Your task to perform on an android device: toggle show notifications on the lock screen Image 0: 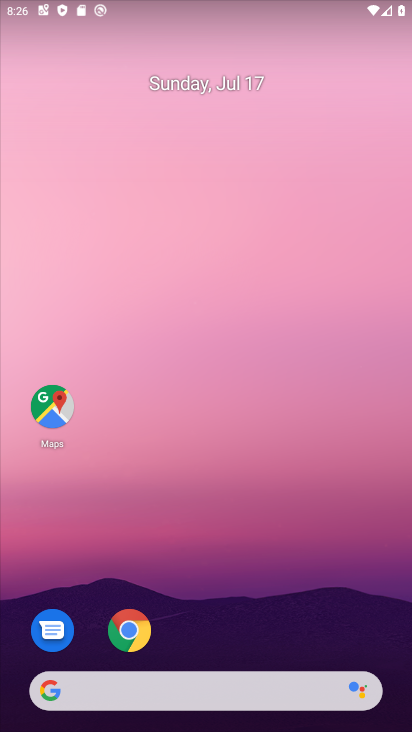
Step 0: drag from (324, 615) to (335, 100)
Your task to perform on an android device: toggle show notifications on the lock screen Image 1: 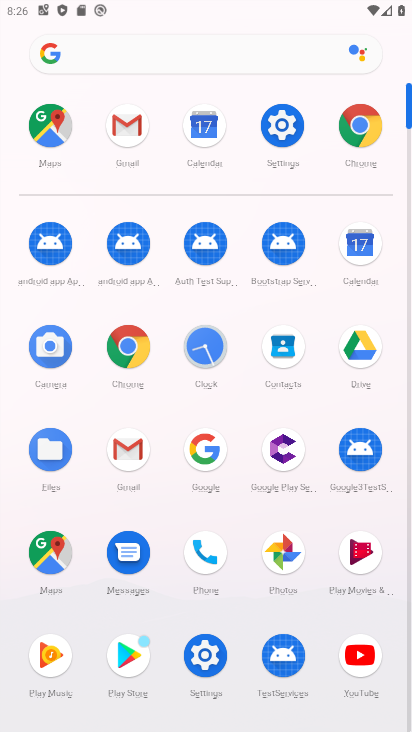
Step 1: click (288, 130)
Your task to perform on an android device: toggle show notifications on the lock screen Image 2: 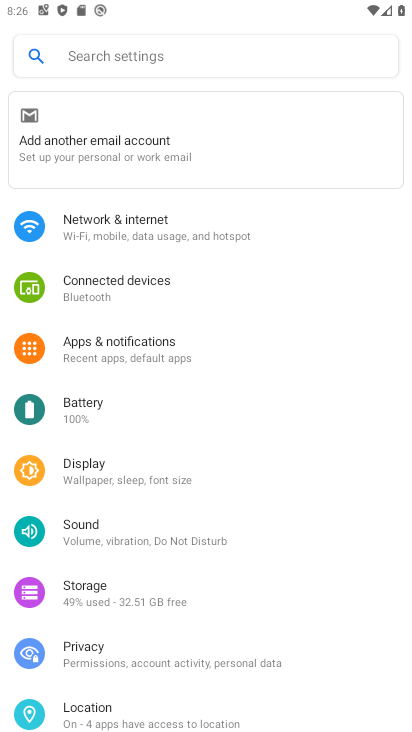
Step 2: drag from (332, 523) to (336, 372)
Your task to perform on an android device: toggle show notifications on the lock screen Image 3: 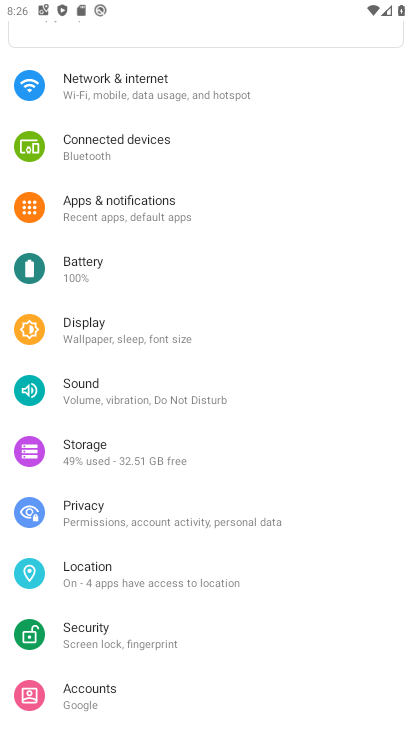
Step 3: drag from (341, 583) to (338, 428)
Your task to perform on an android device: toggle show notifications on the lock screen Image 4: 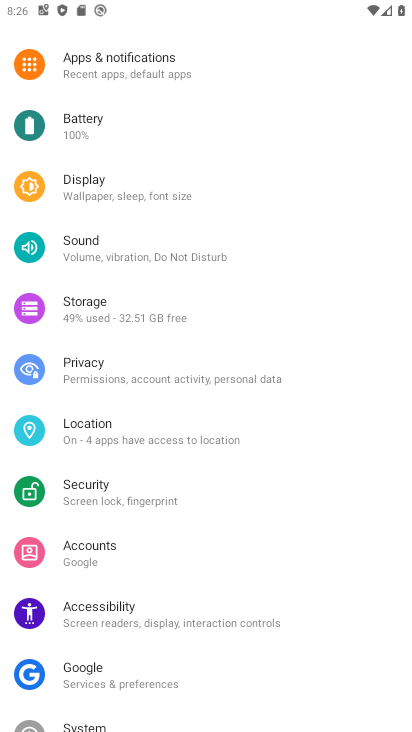
Step 4: drag from (334, 585) to (335, 496)
Your task to perform on an android device: toggle show notifications on the lock screen Image 5: 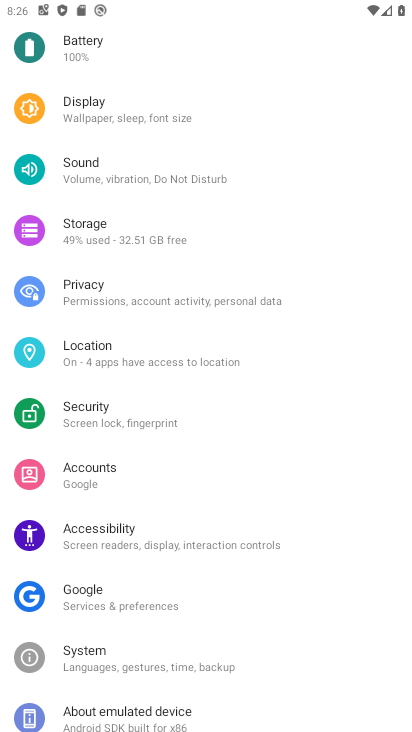
Step 5: drag from (328, 621) to (312, 431)
Your task to perform on an android device: toggle show notifications on the lock screen Image 6: 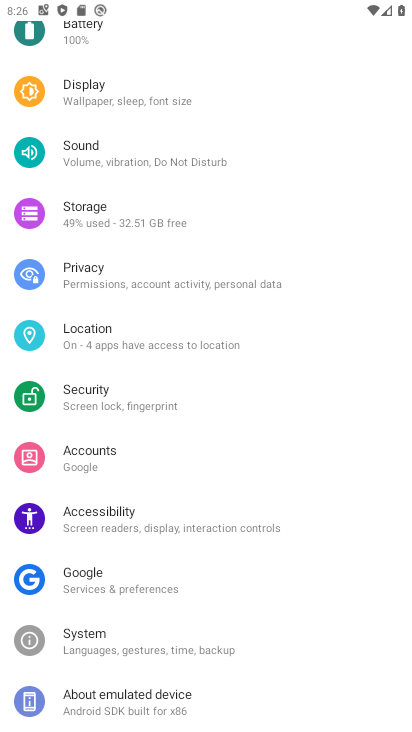
Step 6: drag from (337, 275) to (336, 462)
Your task to perform on an android device: toggle show notifications on the lock screen Image 7: 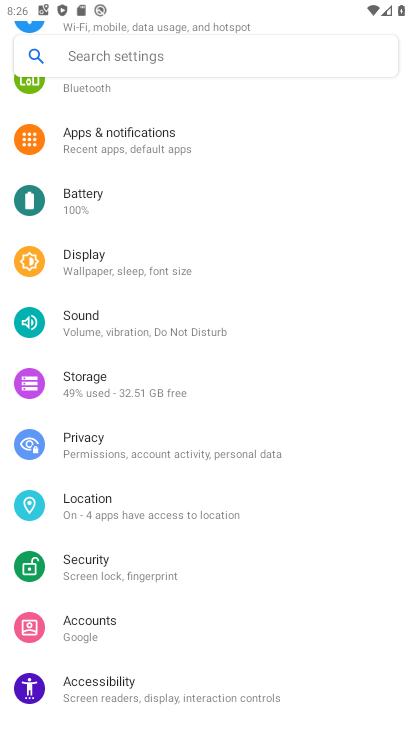
Step 7: drag from (328, 252) to (328, 469)
Your task to perform on an android device: toggle show notifications on the lock screen Image 8: 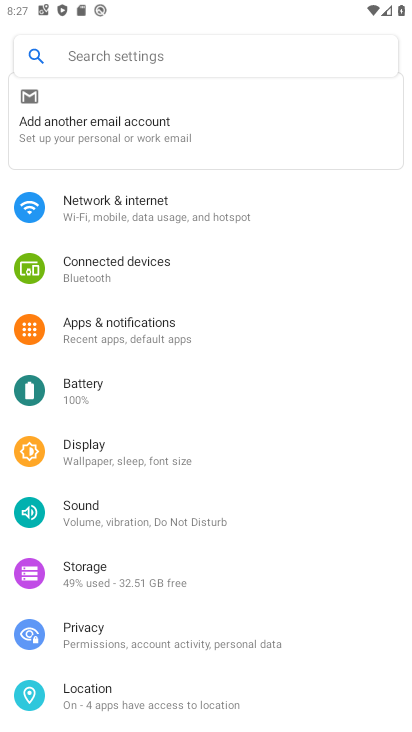
Step 8: drag from (341, 260) to (333, 394)
Your task to perform on an android device: toggle show notifications on the lock screen Image 9: 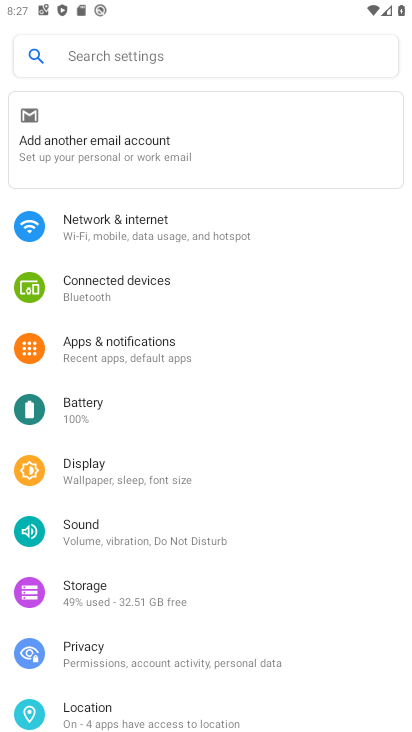
Step 9: drag from (318, 515) to (329, 434)
Your task to perform on an android device: toggle show notifications on the lock screen Image 10: 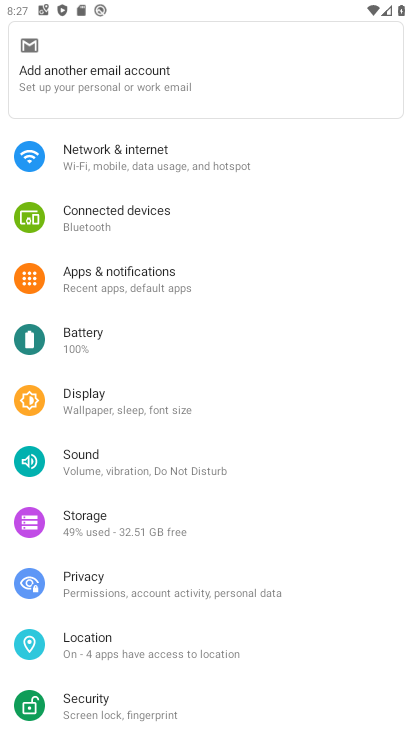
Step 10: drag from (336, 590) to (342, 469)
Your task to perform on an android device: toggle show notifications on the lock screen Image 11: 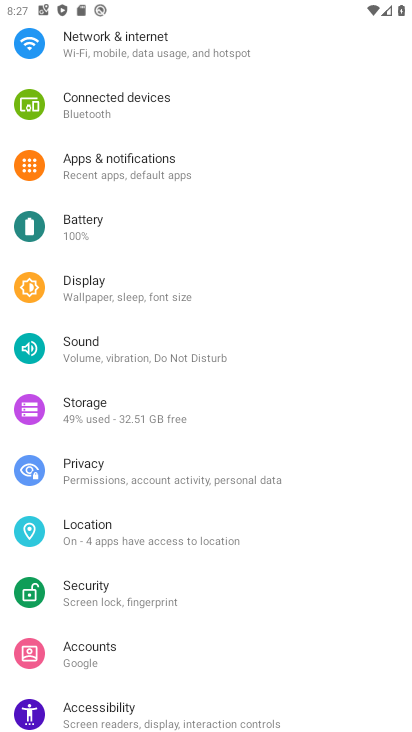
Step 11: drag from (337, 240) to (321, 390)
Your task to perform on an android device: toggle show notifications on the lock screen Image 12: 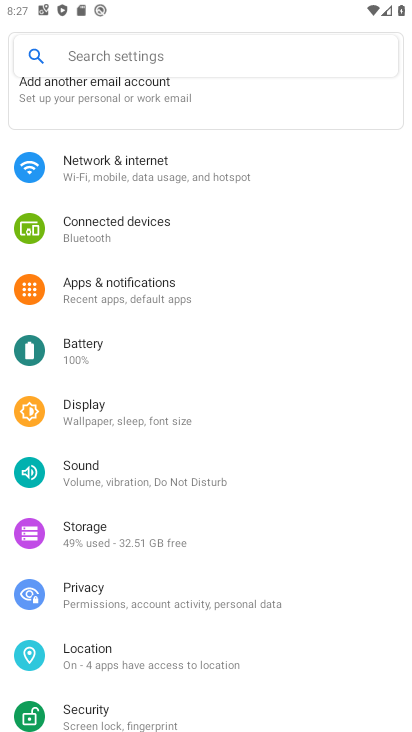
Step 12: click (206, 292)
Your task to perform on an android device: toggle show notifications on the lock screen Image 13: 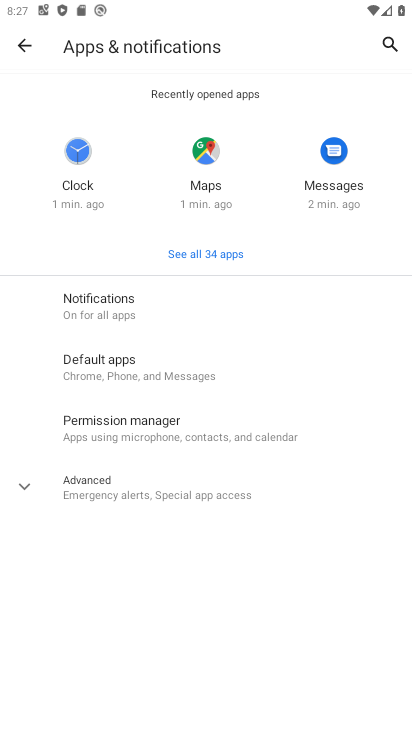
Step 13: click (154, 310)
Your task to perform on an android device: toggle show notifications on the lock screen Image 14: 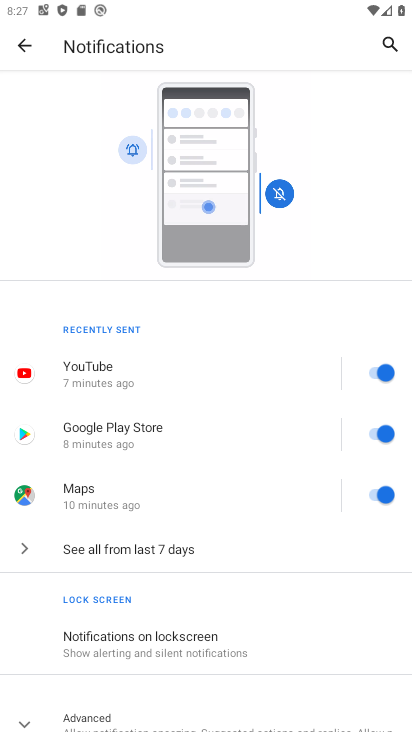
Step 14: drag from (225, 502) to (240, 357)
Your task to perform on an android device: toggle show notifications on the lock screen Image 15: 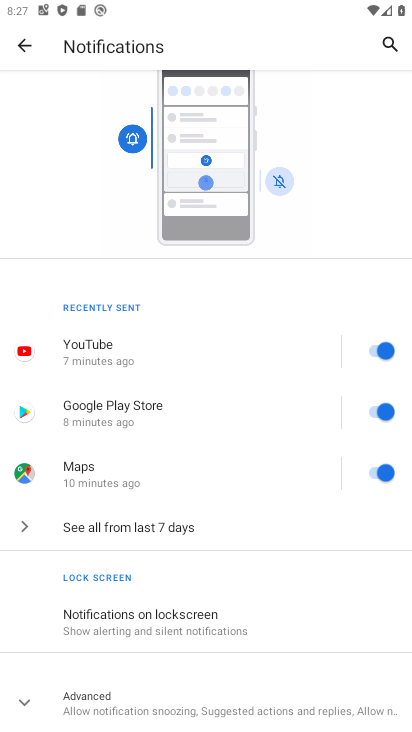
Step 15: click (236, 618)
Your task to perform on an android device: toggle show notifications on the lock screen Image 16: 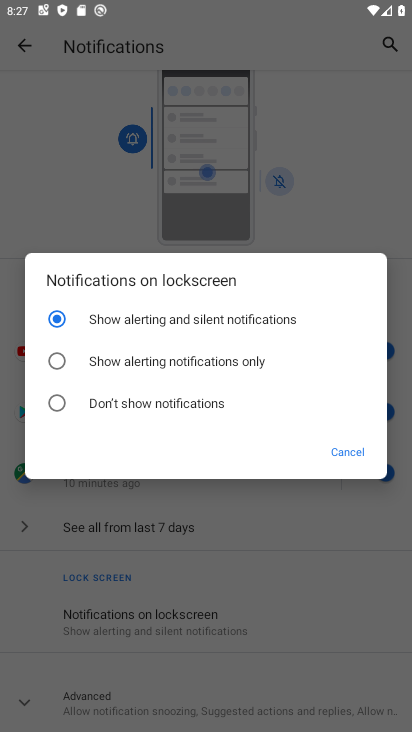
Step 16: click (111, 364)
Your task to perform on an android device: toggle show notifications on the lock screen Image 17: 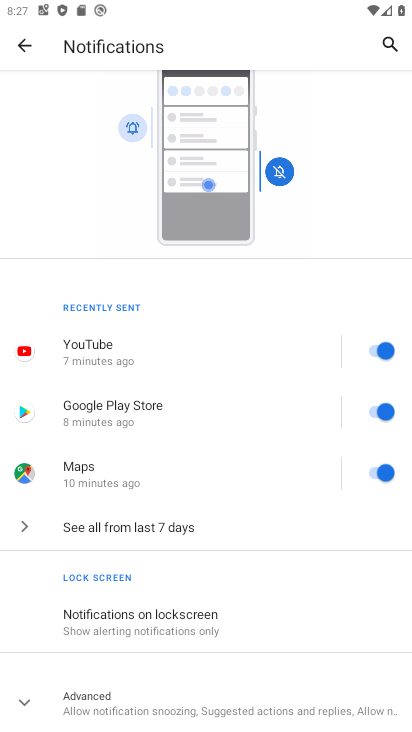
Step 17: task complete